Your task to perform on an android device: Go to internet settings Image 0: 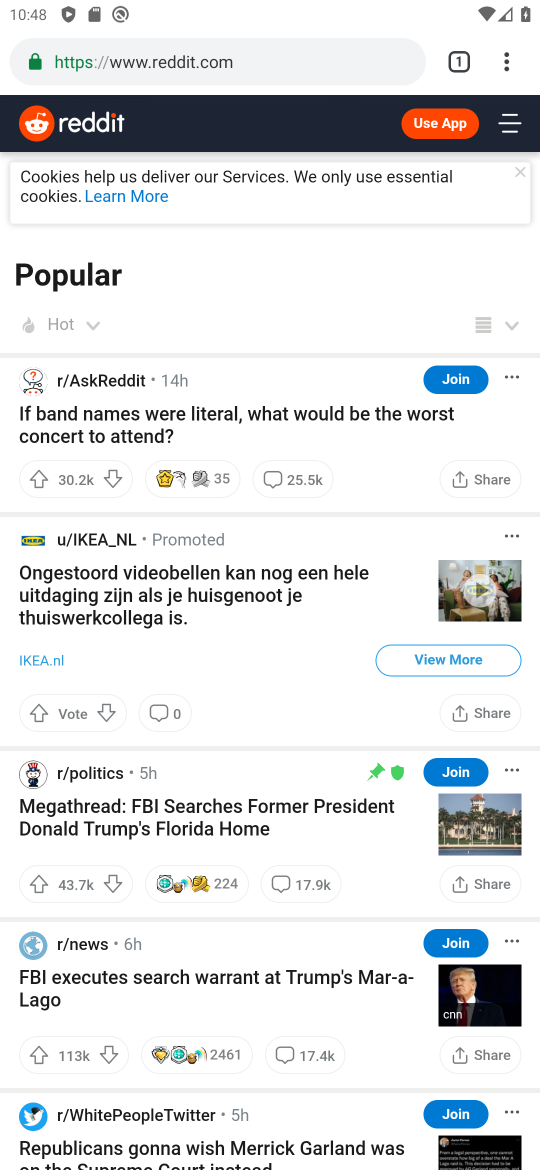
Step 0: task complete